Your task to perform on an android device: set default search engine in the chrome app Image 0: 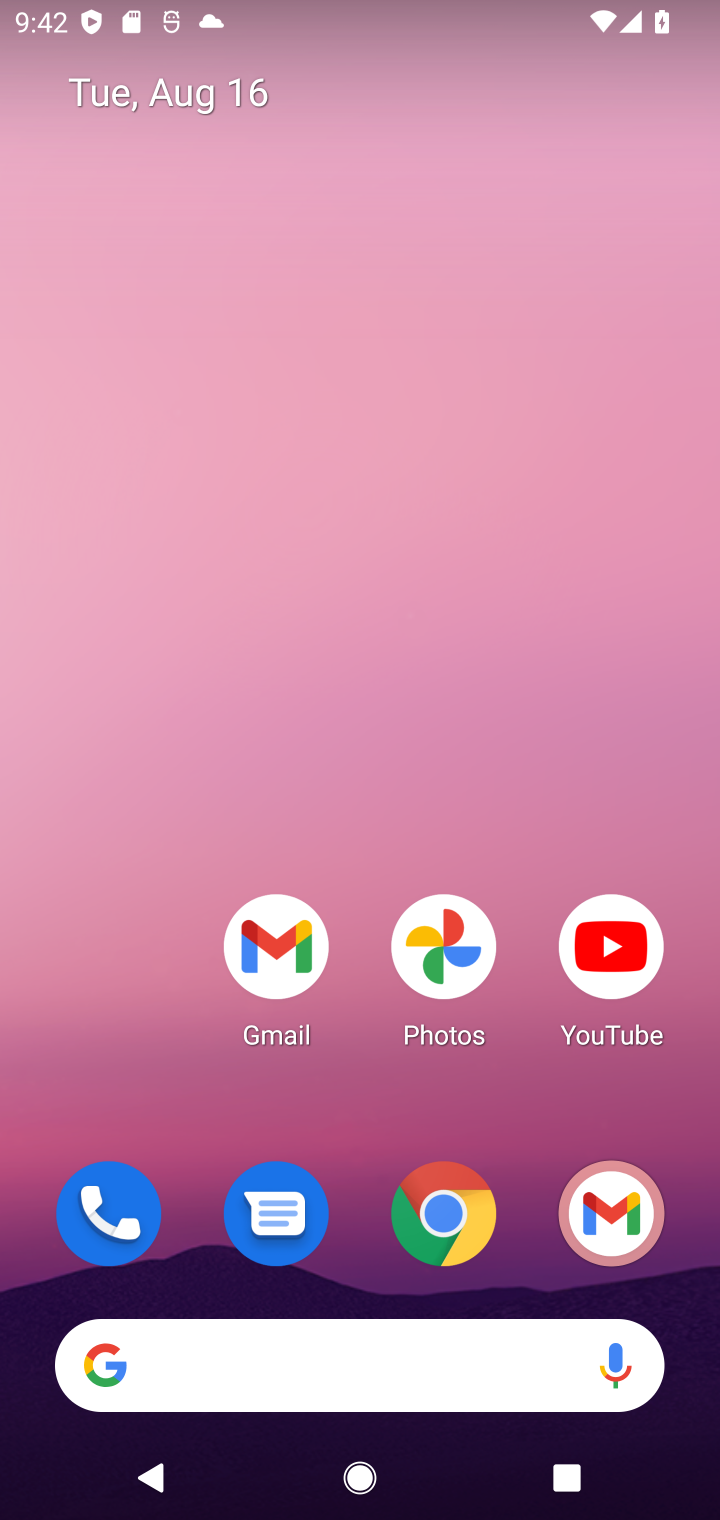
Step 0: drag from (309, 1242) to (461, 338)
Your task to perform on an android device: set default search engine in the chrome app Image 1: 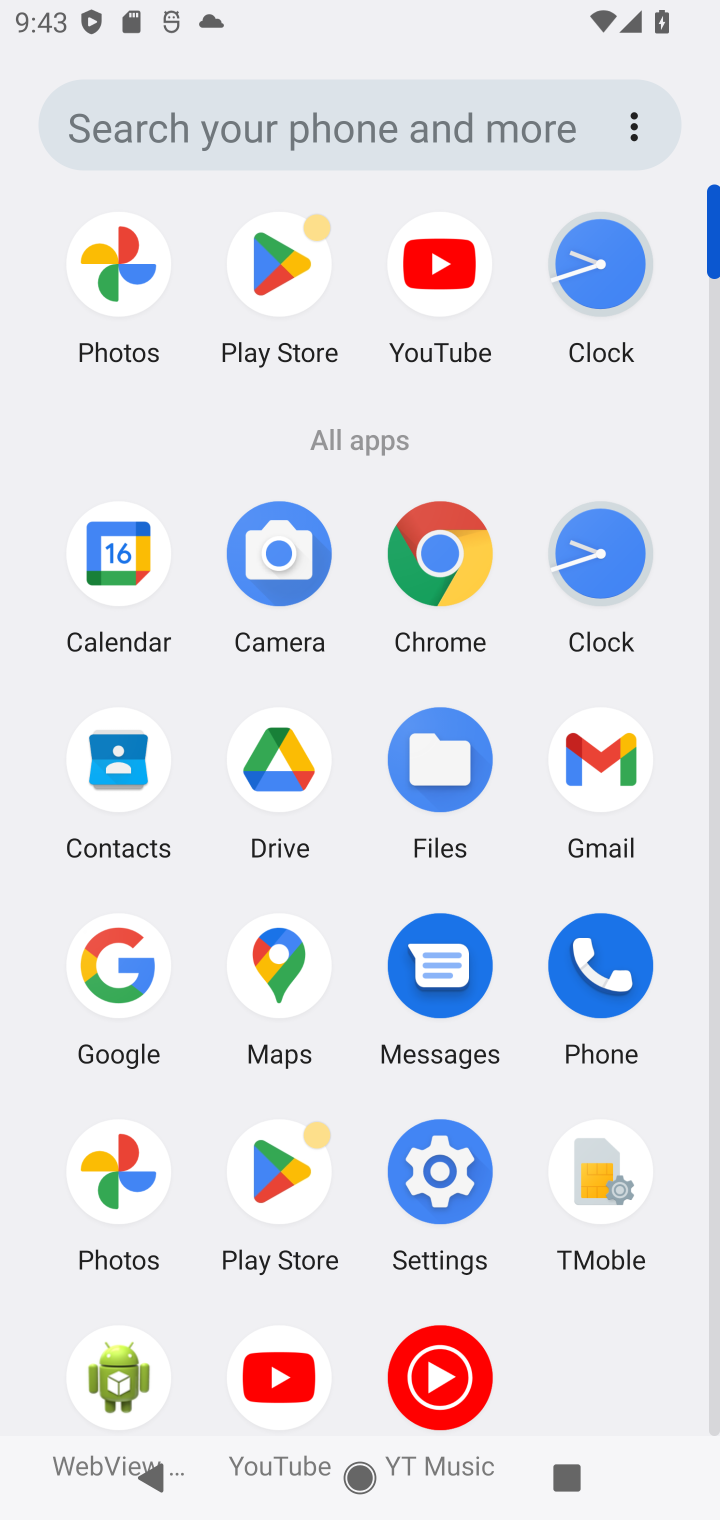
Step 1: click (457, 541)
Your task to perform on an android device: set default search engine in the chrome app Image 2: 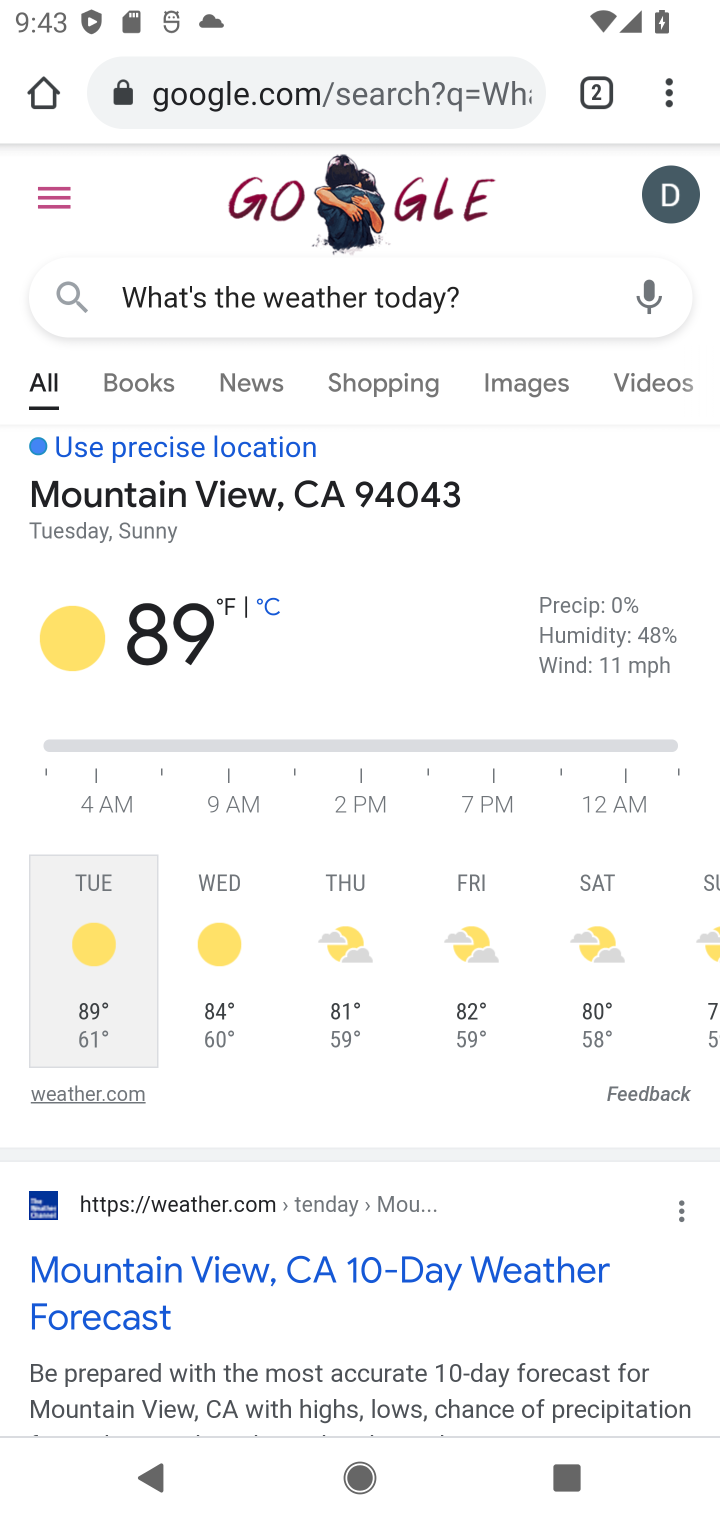
Step 2: click (672, 85)
Your task to perform on an android device: set default search engine in the chrome app Image 3: 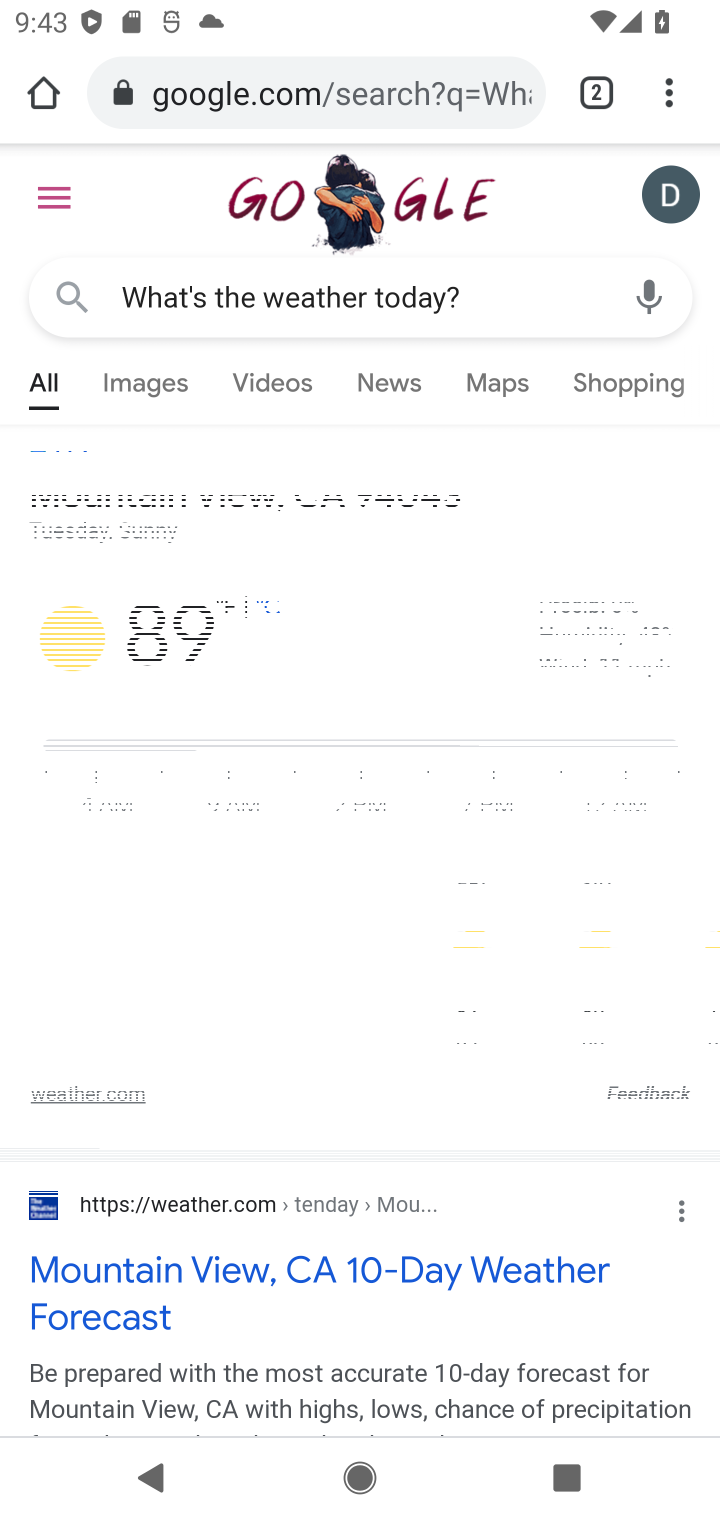
Step 3: click (660, 100)
Your task to perform on an android device: set default search engine in the chrome app Image 4: 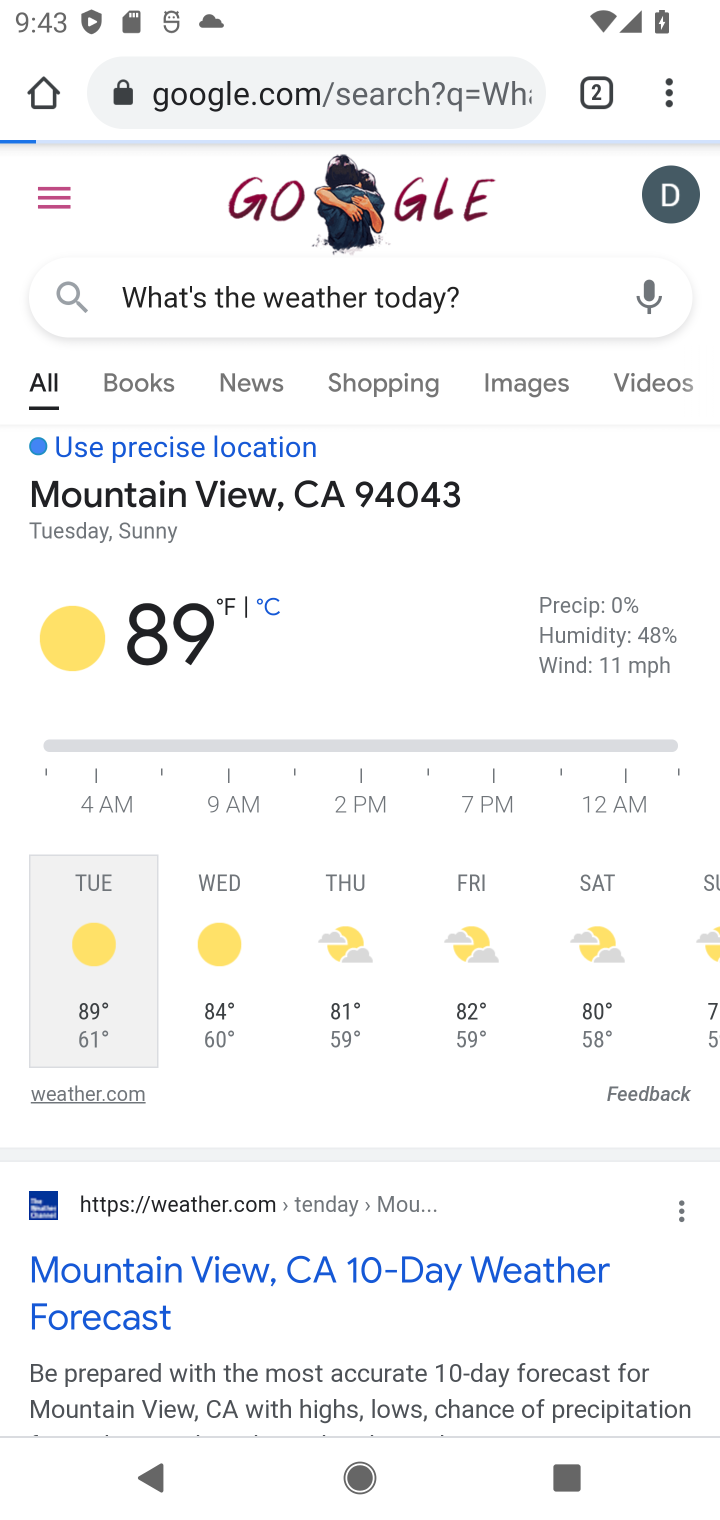
Step 4: click (668, 88)
Your task to perform on an android device: set default search engine in the chrome app Image 5: 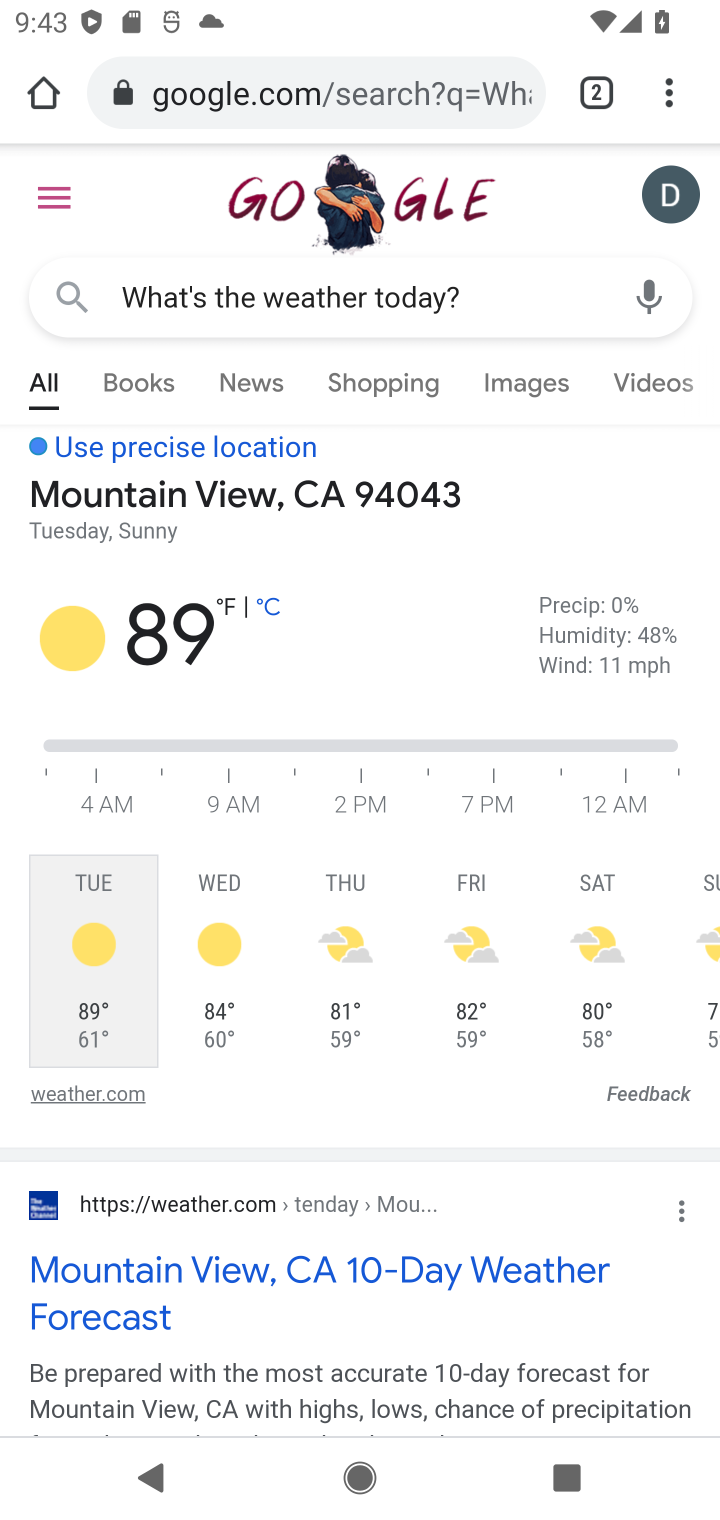
Step 5: click (656, 81)
Your task to perform on an android device: set default search engine in the chrome app Image 6: 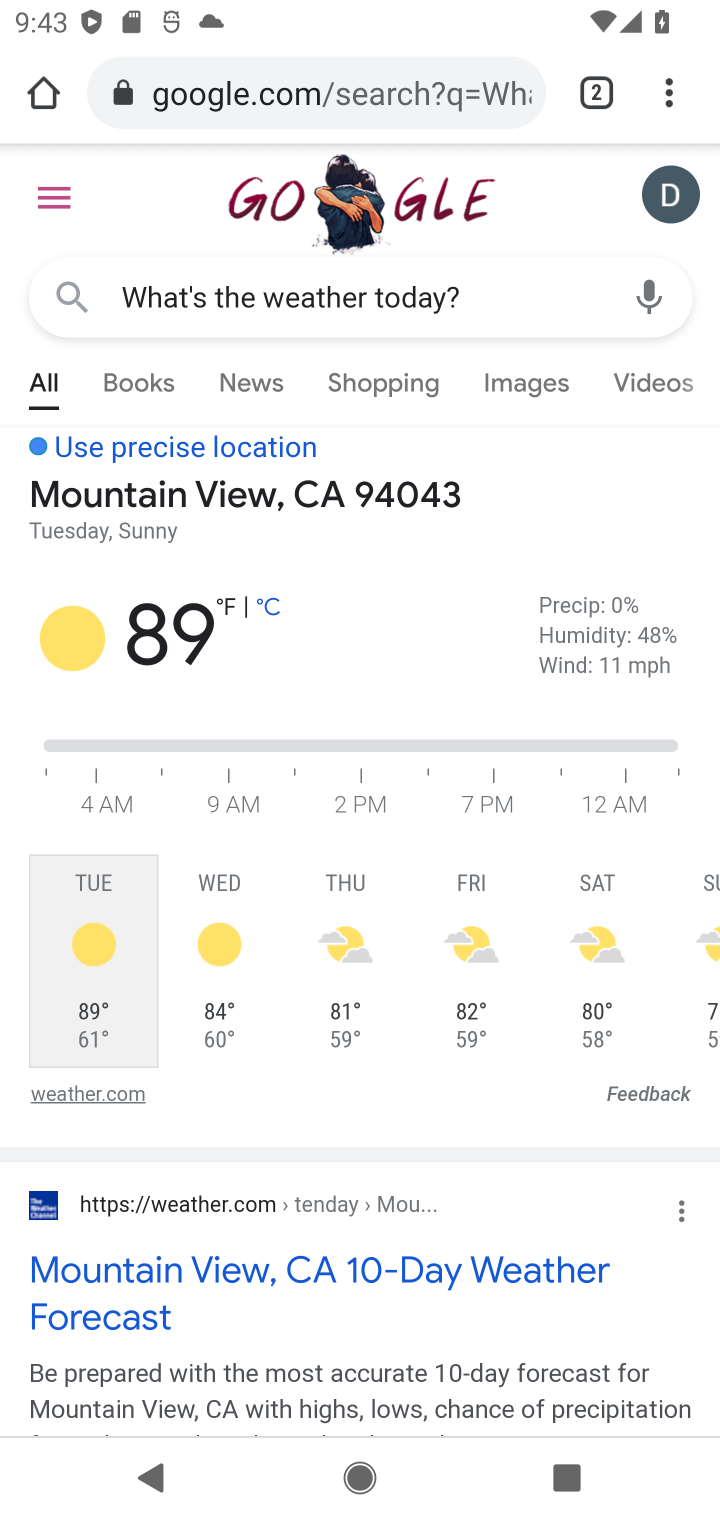
Step 6: click (585, 78)
Your task to perform on an android device: set default search engine in the chrome app Image 7: 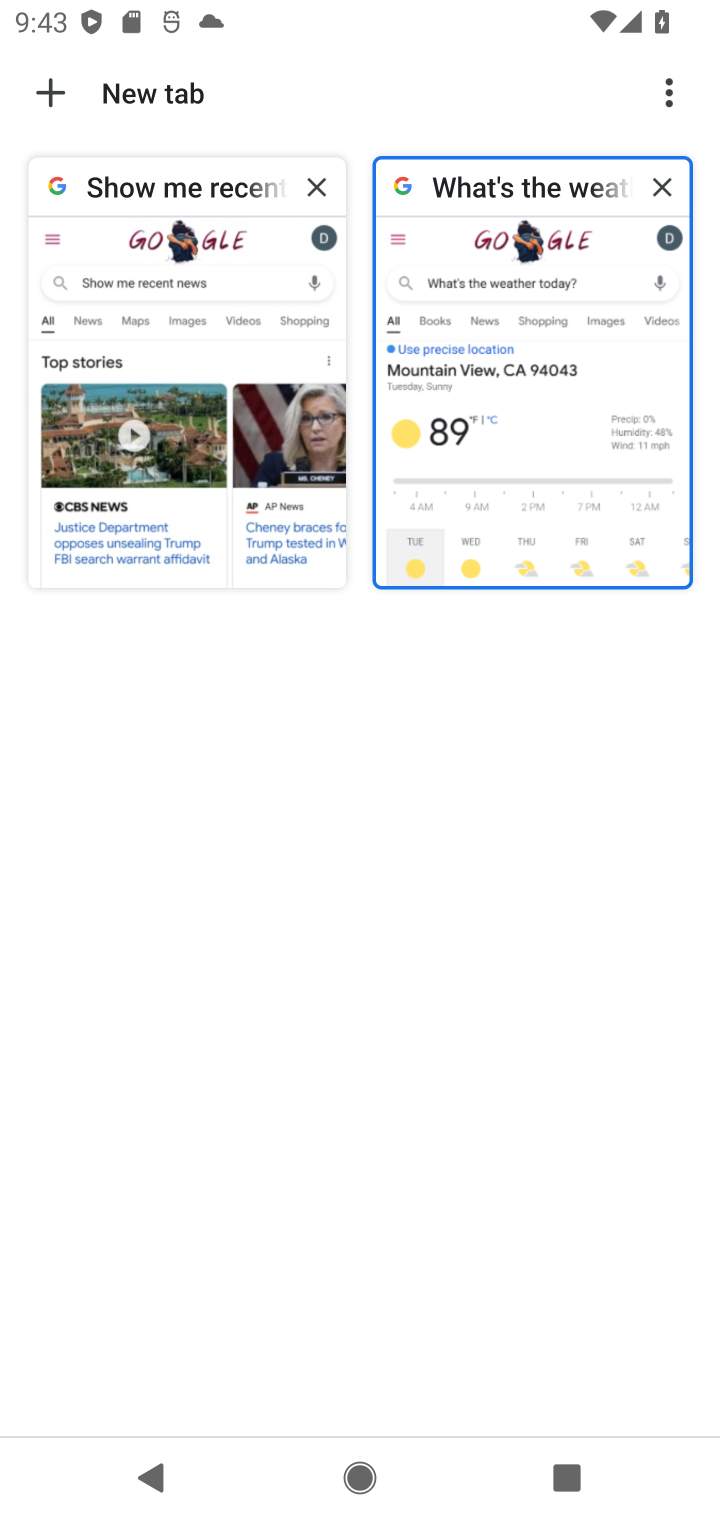
Step 7: click (674, 86)
Your task to perform on an android device: set default search engine in the chrome app Image 8: 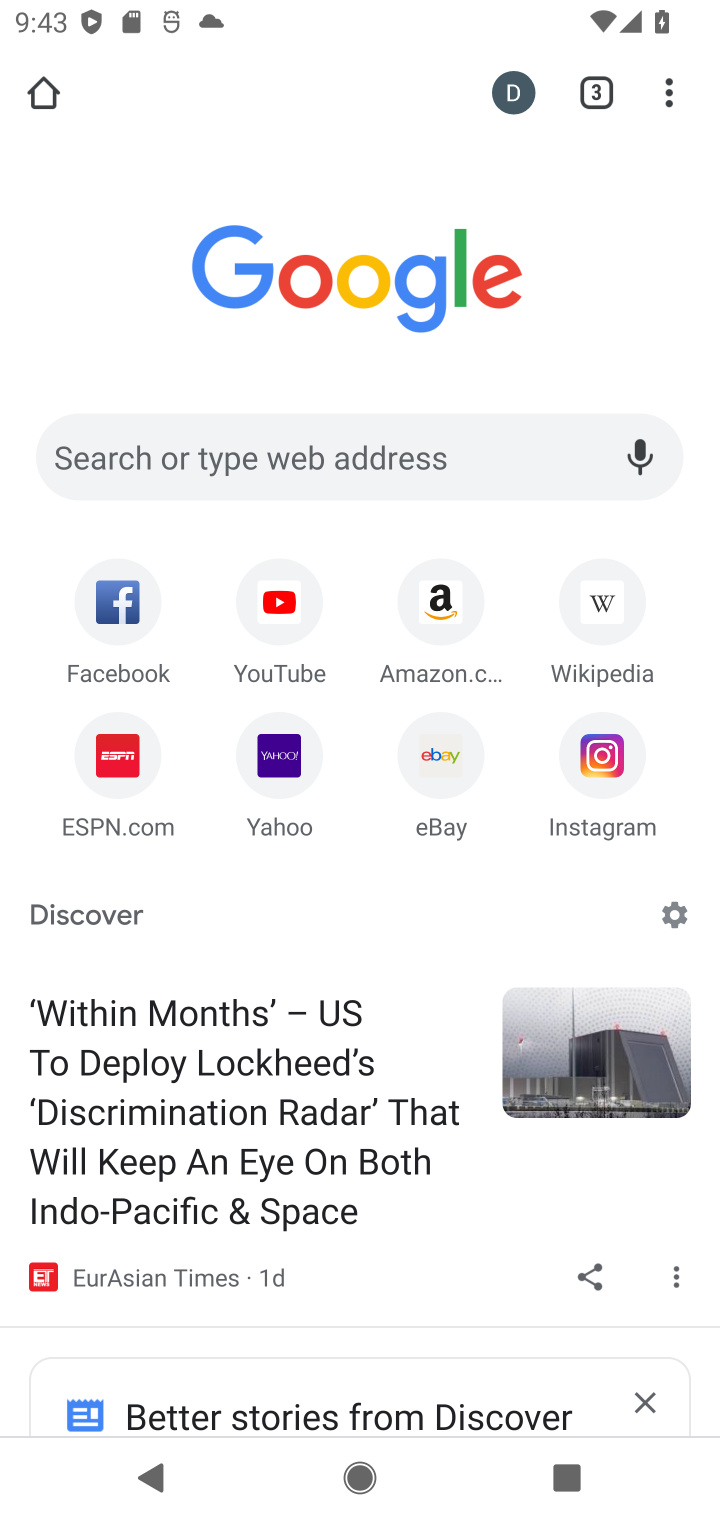
Step 8: click (675, 80)
Your task to perform on an android device: set default search engine in the chrome app Image 9: 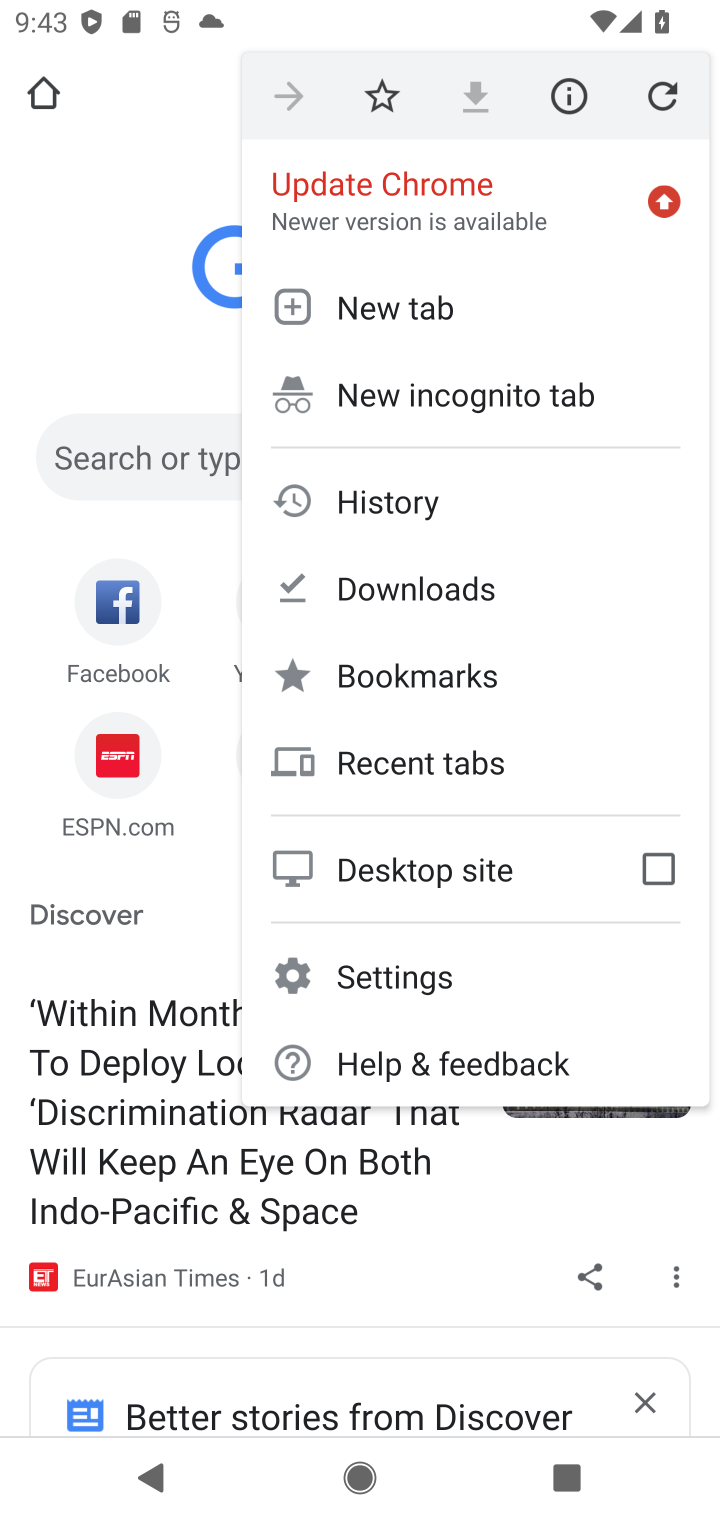
Step 9: click (438, 962)
Your task to perform on an android device: set default search engine in the chrome app Image 10: 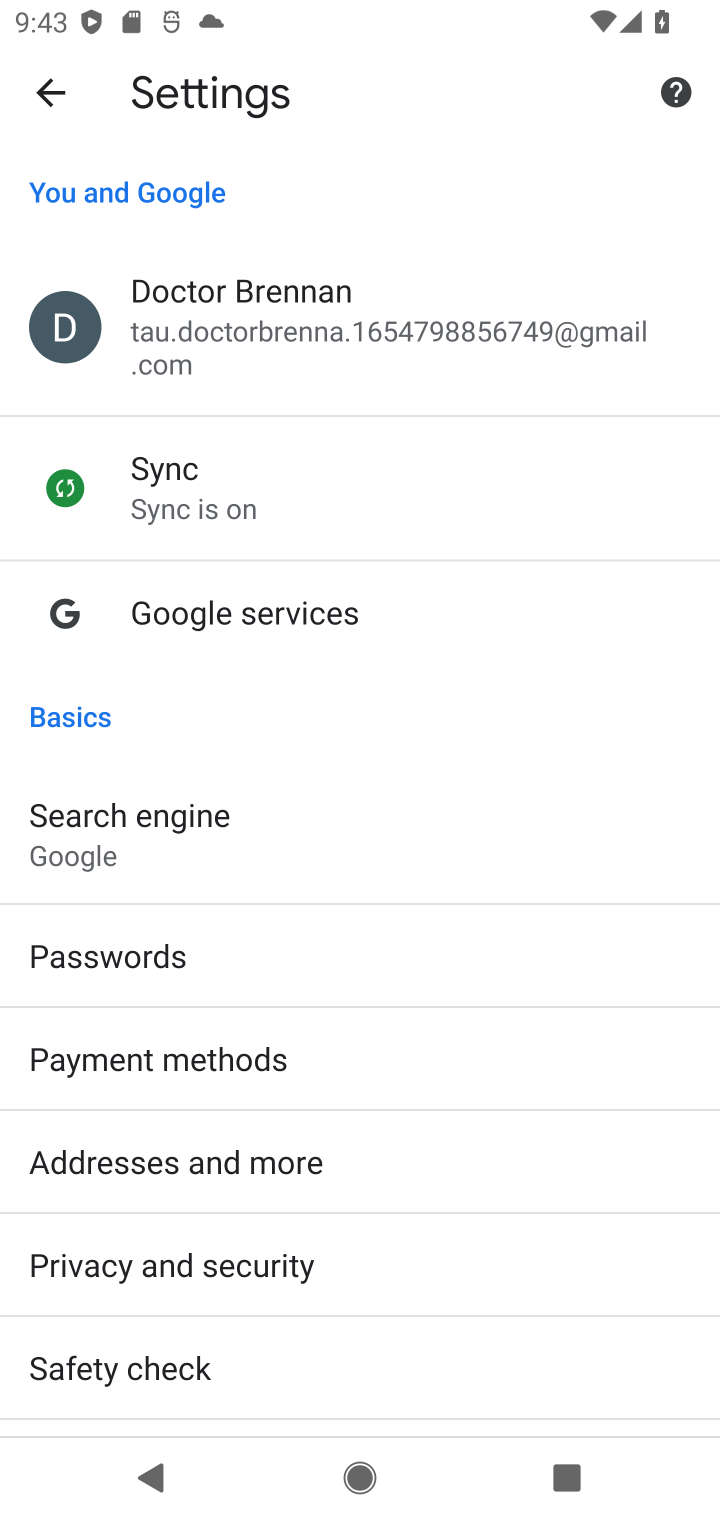
Step 10: drag from (318, 1336) to (339, 730)
Your task to perform on an android device: set default search engine in the chrome app Image 11: 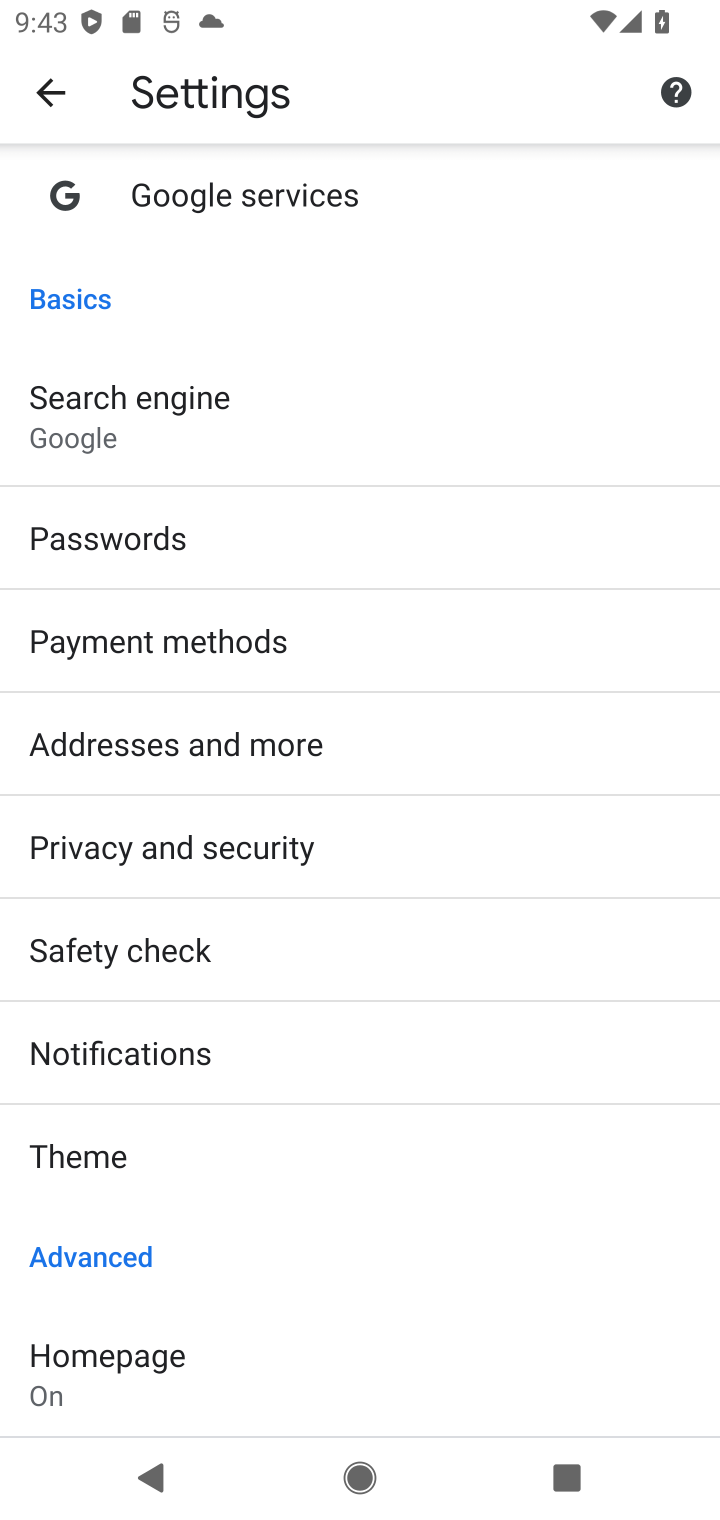
Step 11: click (171, 404)
Your task to perform on an android device: set default search engine in the chrome app Image 12: 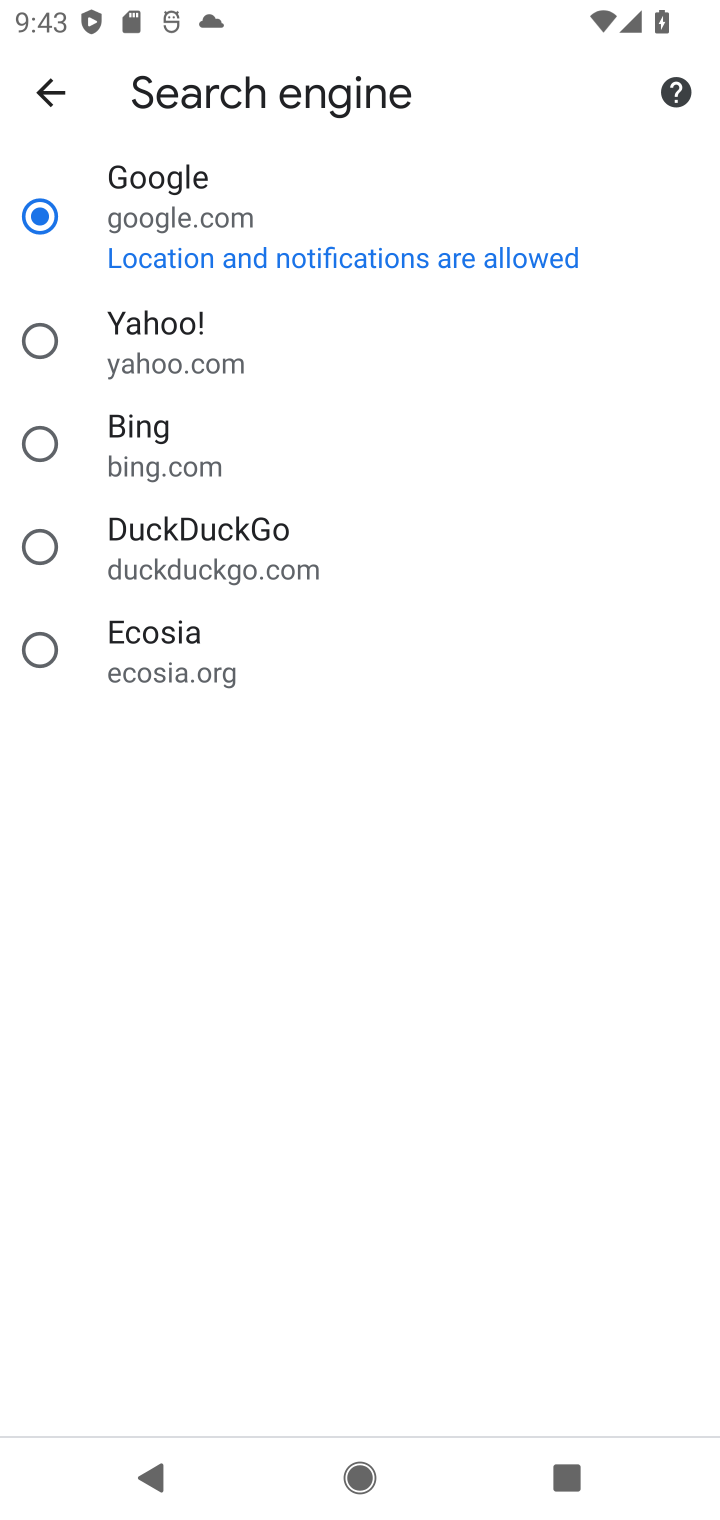
Step 12: click (184, 554)
Your task to perform on an android device: set default search engine in the chrome app Image 13: 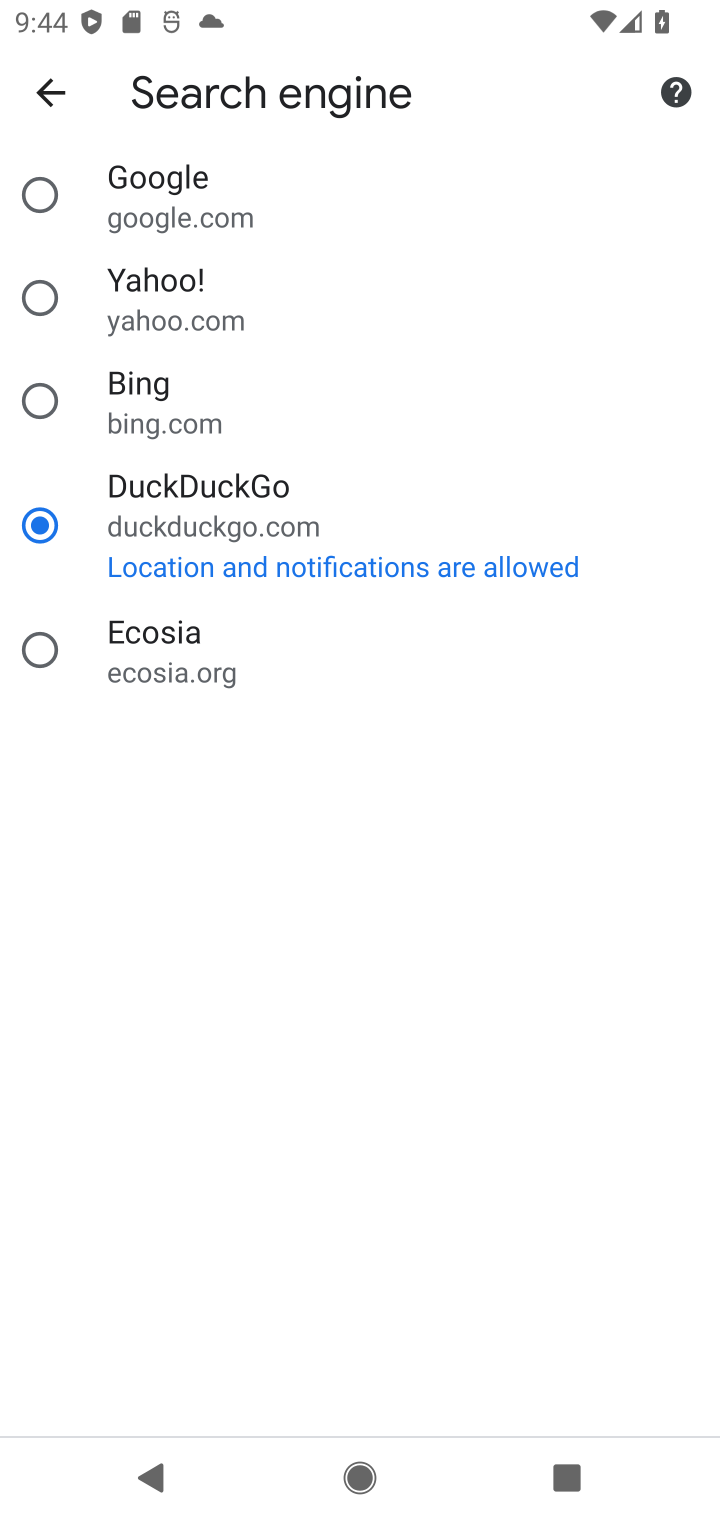
Step 13: task complete